Your task to perform on an android device: check storage Image 0: 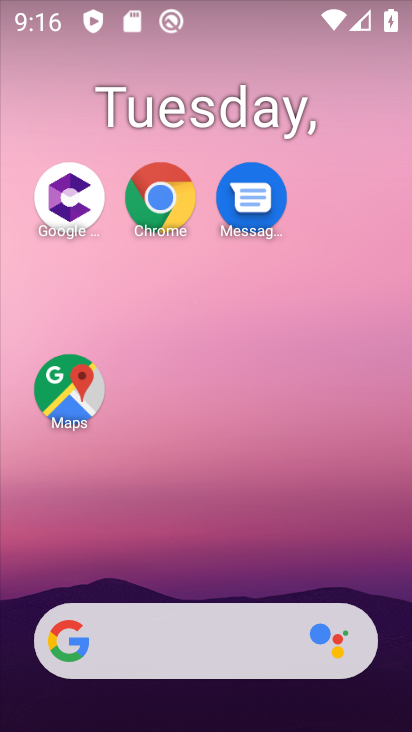
Step 0: drag from (213, 590) to (173, 34)
Your task to perform on an android device: check storage Image 1: 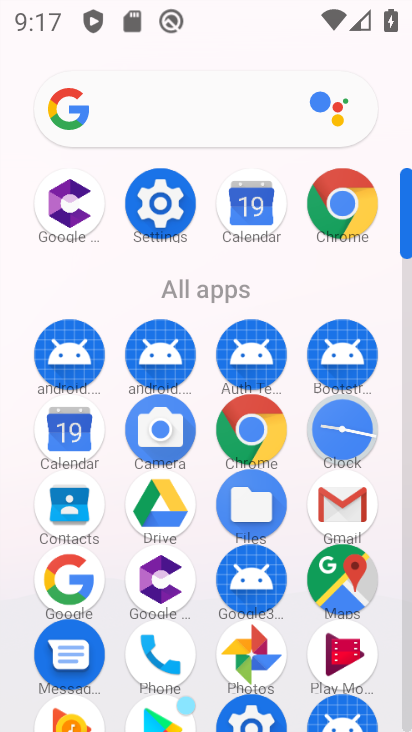
Step 1: click (155, 195)
Your task to perform on an android device: check storage Image 2: 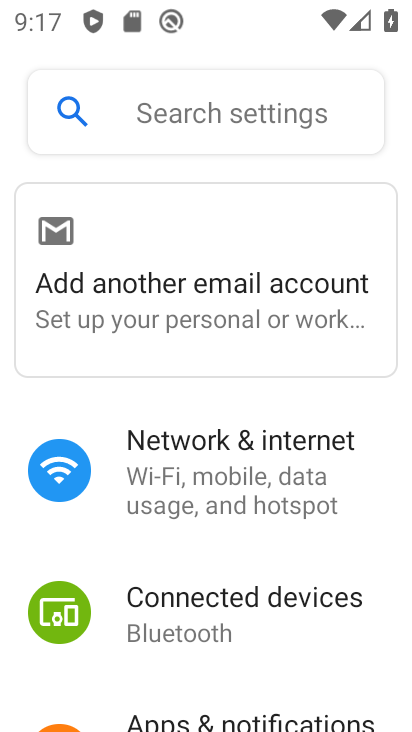
Step 2: drag from (216, 623) to (146, 184)
Your task to perform on an android device: check storage Image 3: 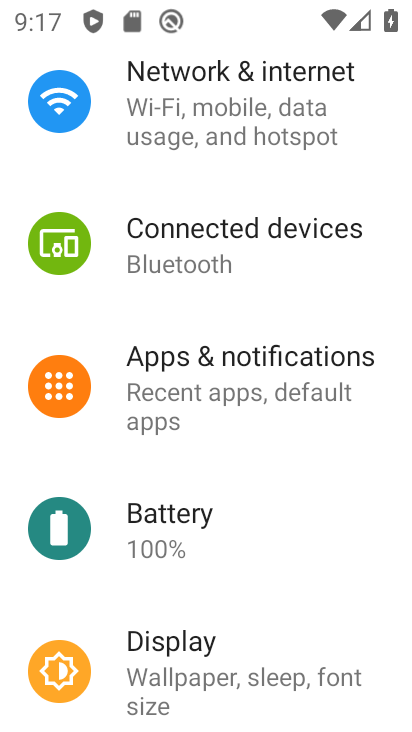
Step 3: drag from (186, 597) to (156, 261)
Your task to perform on an android device: check storage Image 4: 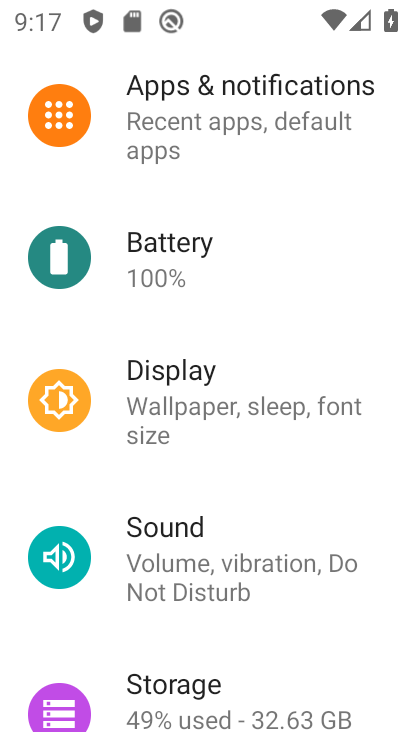
Step 4: click (157, 667)
Your task to perform on an android device: check storage Image 5: 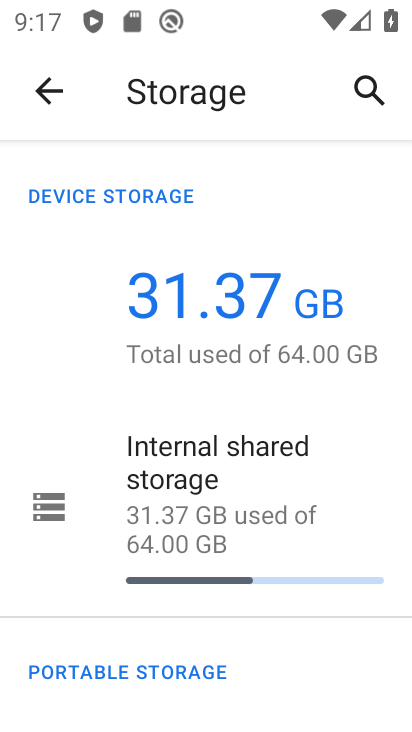
Step 5: task complete